Your task to perform on an android device: install app "File Manager" Image 0: 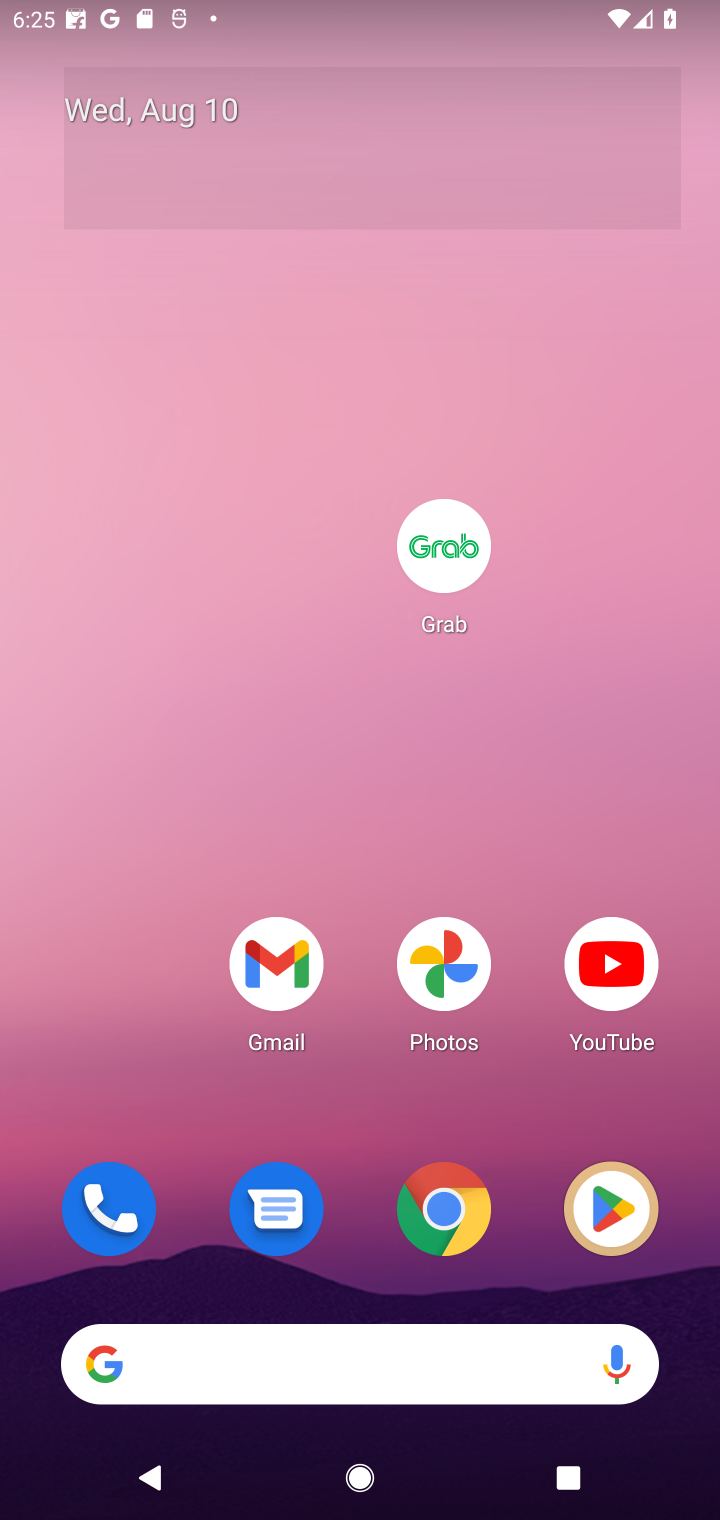
Step 0: drag from (365, 1309) to (359, 343)
Your task to perform on an android device: install app "File Manager" Image 1: 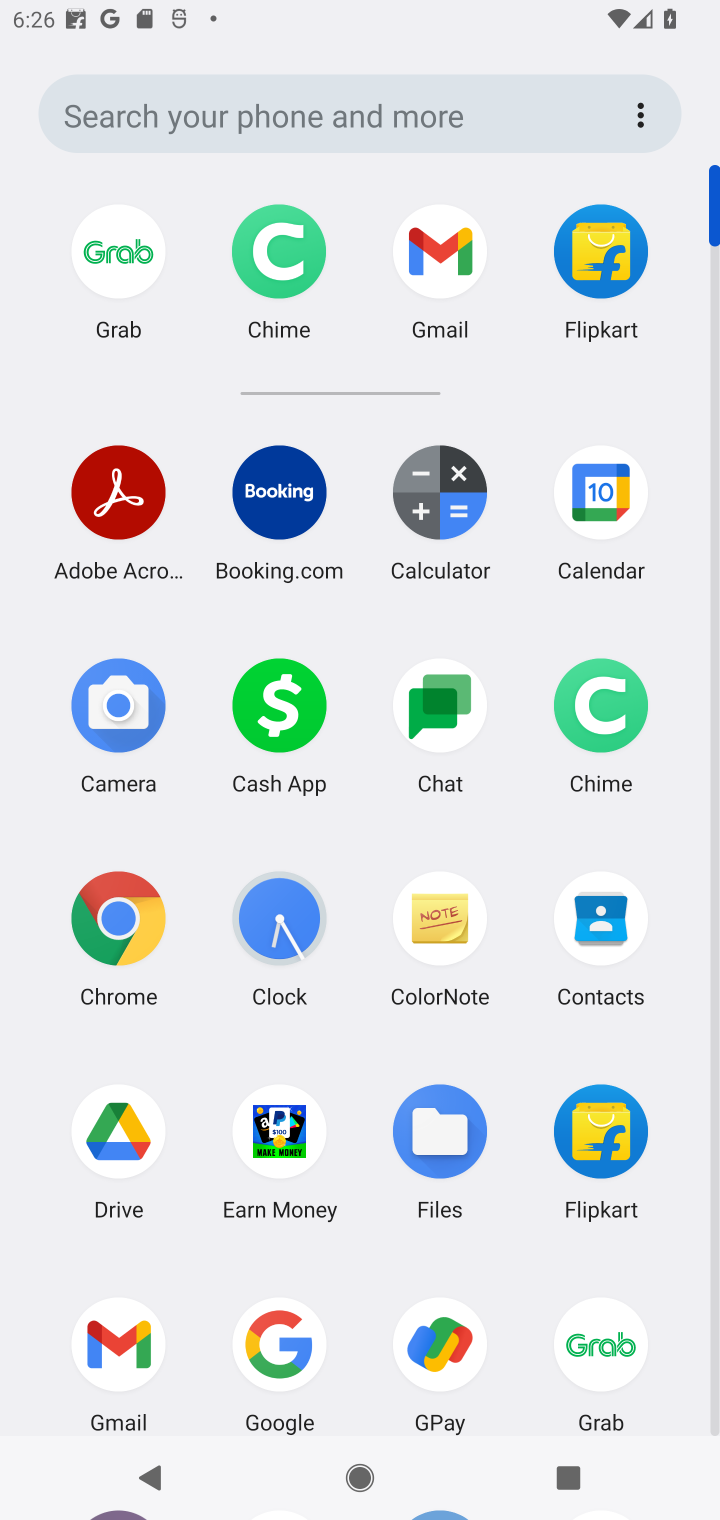
Step 1: click (504, 135)
Your task to perform on an android device: install app "File Manager" Image 2: 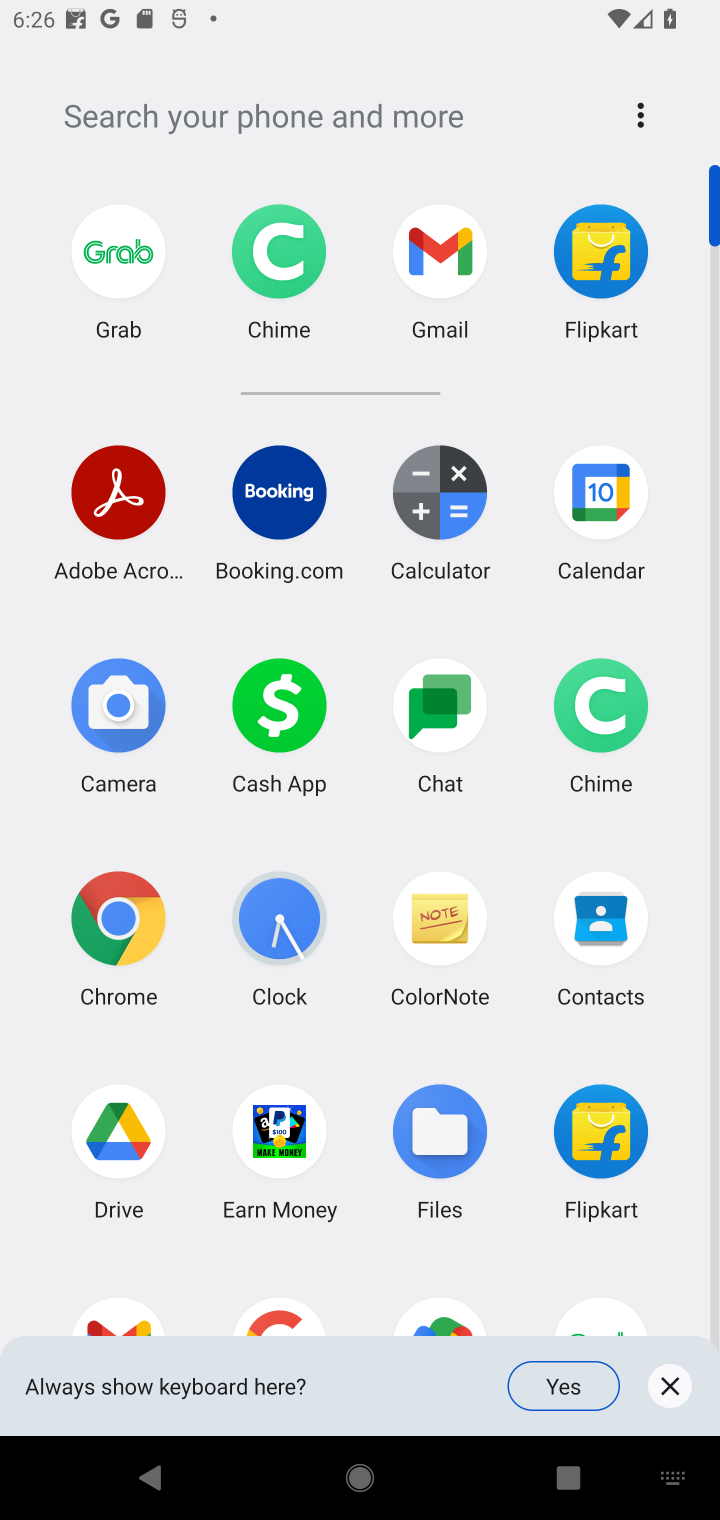
Step 2: type "flilmangeer"
Your task to perform on an android device: install app "File Manager" Image 3: 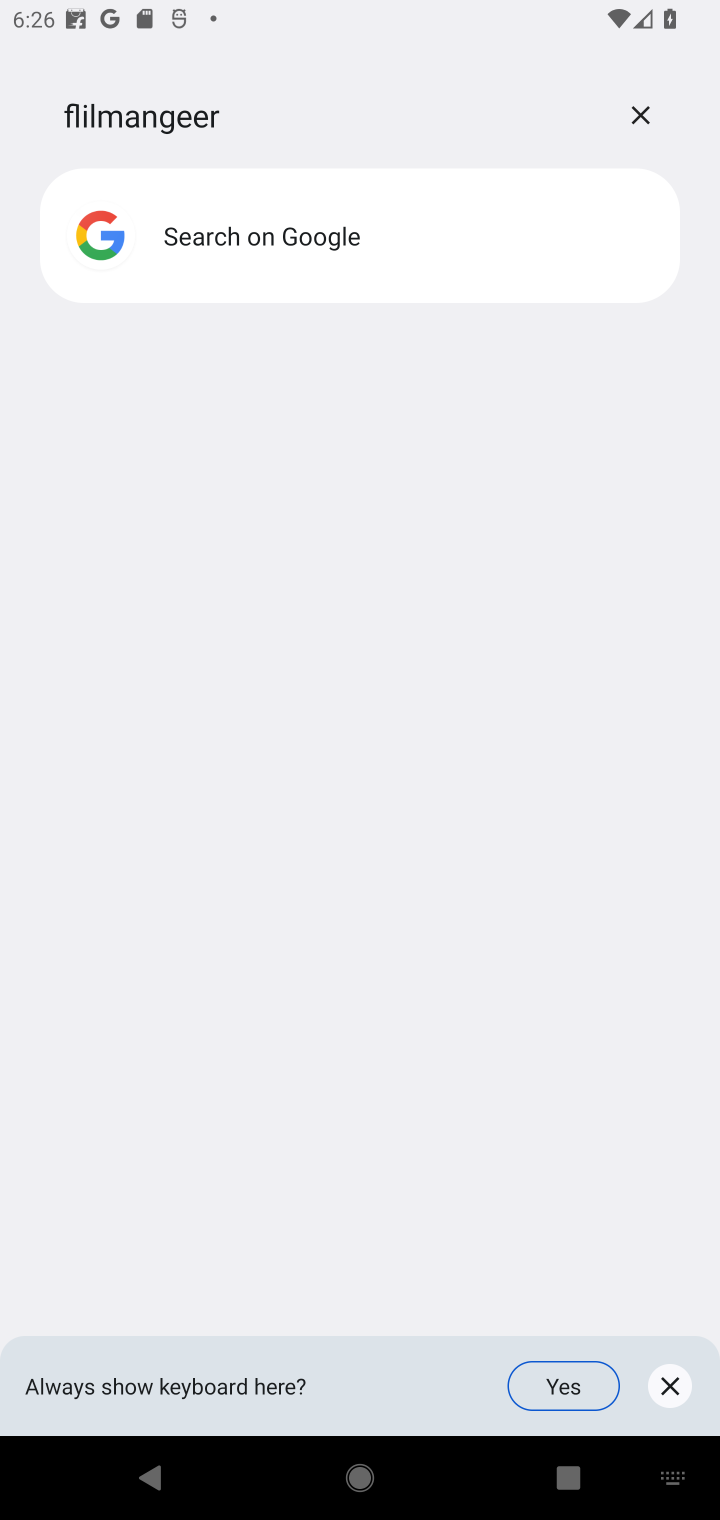
Step 3: task complete